Your task to perform on an android device: What's the weather? Image 0: 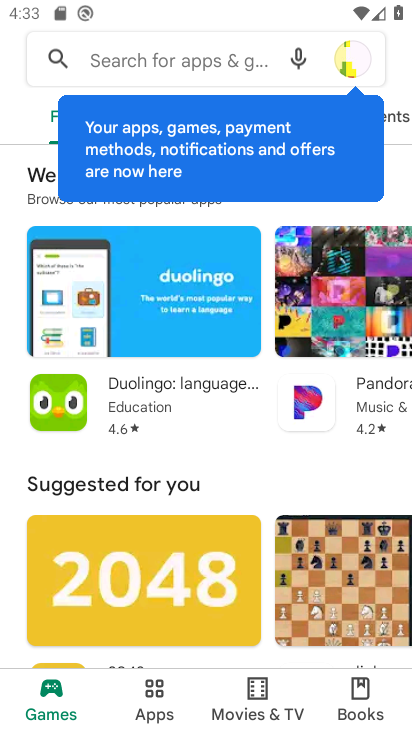
Step 0: press home button
Your task to perform on an android device: What's the weather? Image 1: 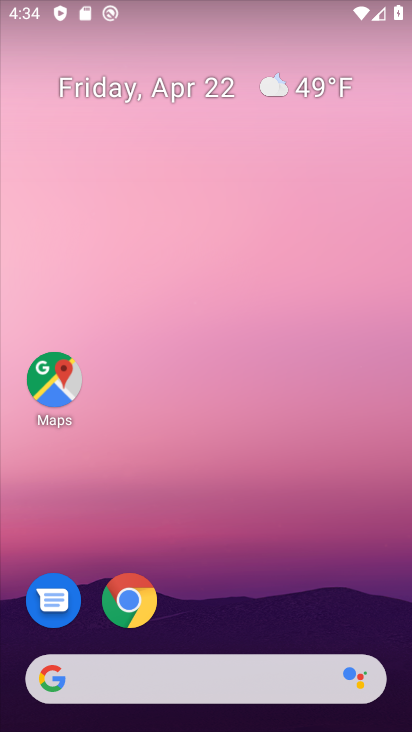
Step 1: drag from (238, 538) to (358, 0)
Your task to perform on an android device: What's the weather? Image 2: 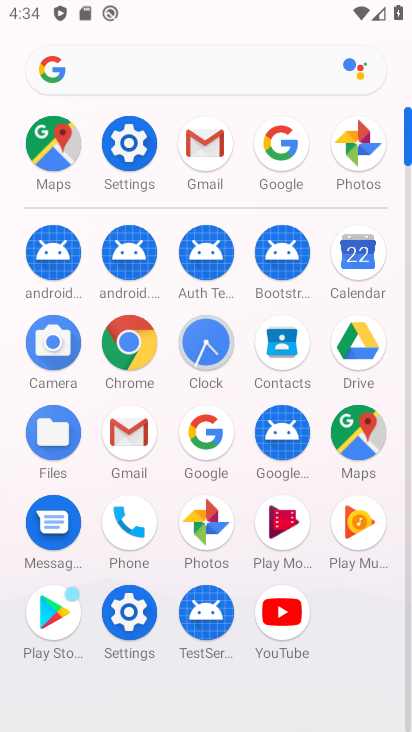
Step 2: click (288, 144)
Your task to perform on an android device: What's the weather? Image 3: 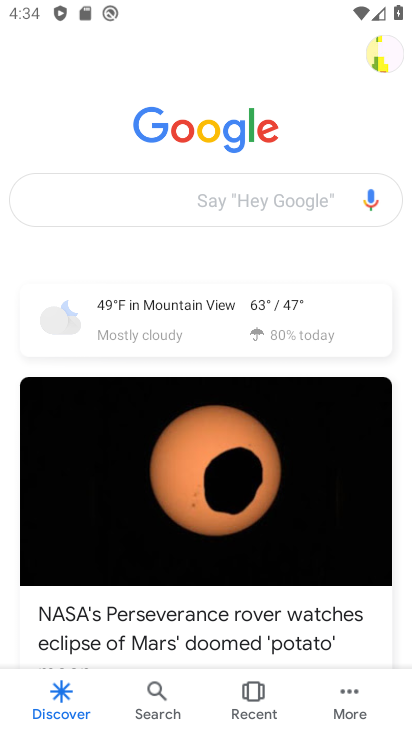
Step 3: click (260, 308)
Your task to perform on an android device: What's the weather? Image 4: 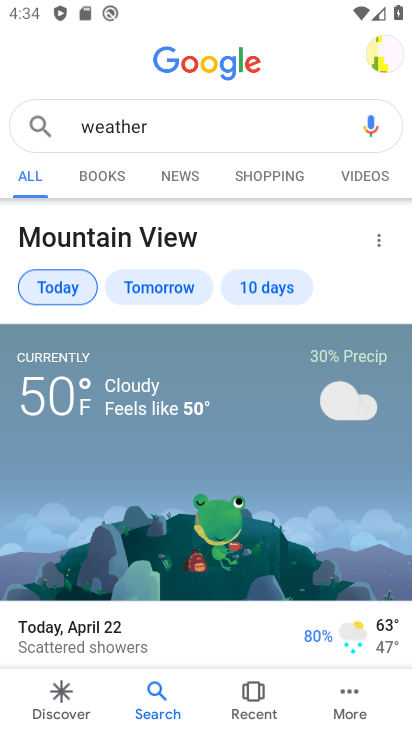
Step 4: task complete